Your task to perform on an android device: turn off sleep mode Image 0: 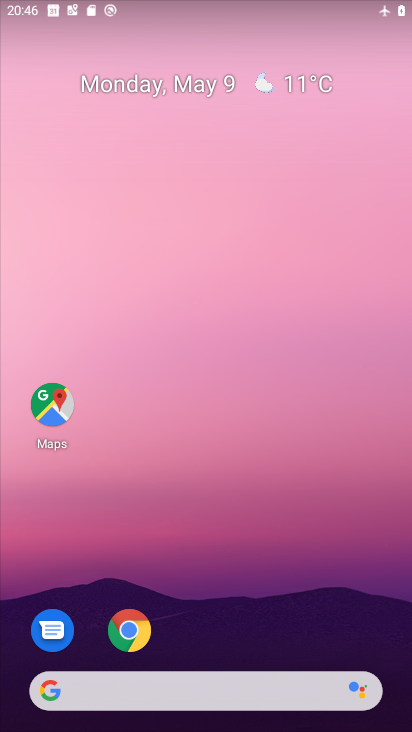
Step 0: drag from (310, 529) to (374, 84)
Your task to perform on an android device: turn off sleep mode Image 1: 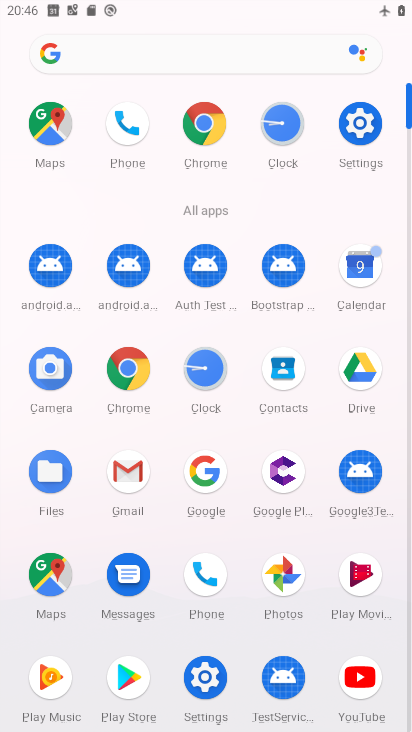
Step 1: click (351, 125)
Your task to perform on an android device: turn off sleep mode Image 2: 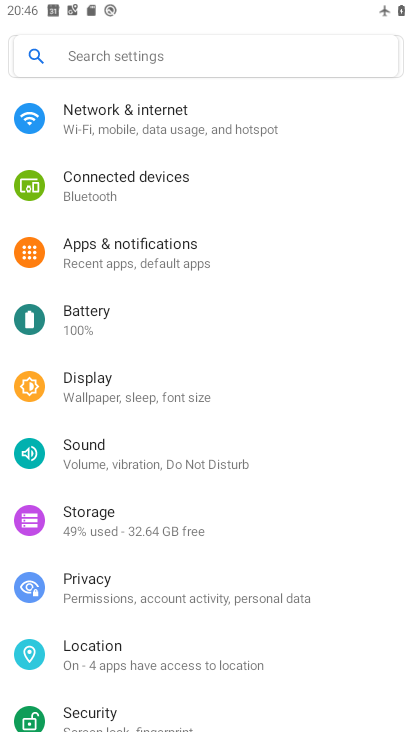
Step 2: click (151, 389)
Your task to perform on an android device: turn off sleep mode Image 3: 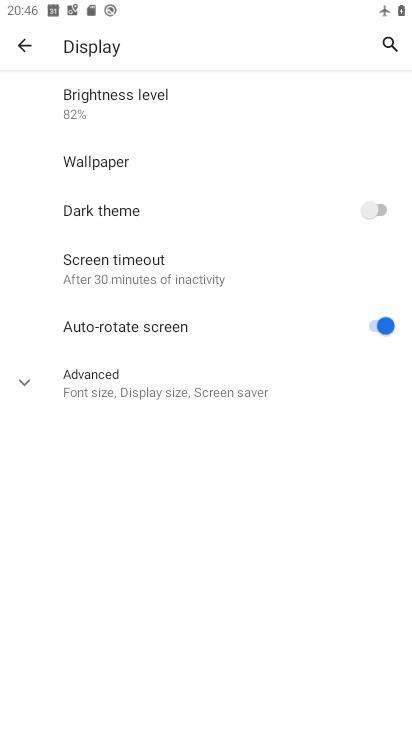
Step 3: click (18, 382)
Your task to perform on an android device: turn off sleep mode Image 4: 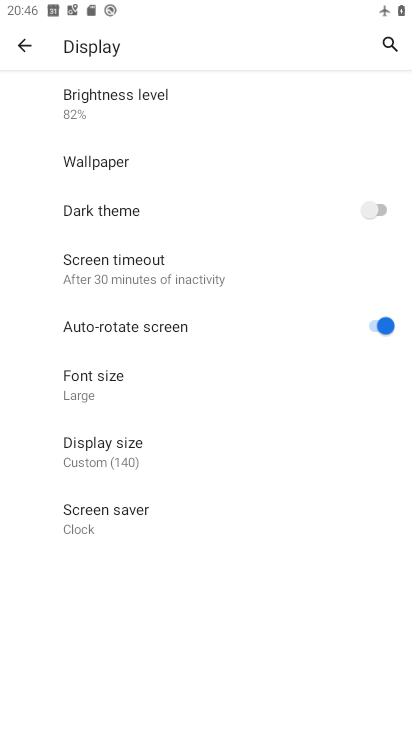
Step 4: task complete